Your task to perform on an android device: When is my next meeting? Image 0: 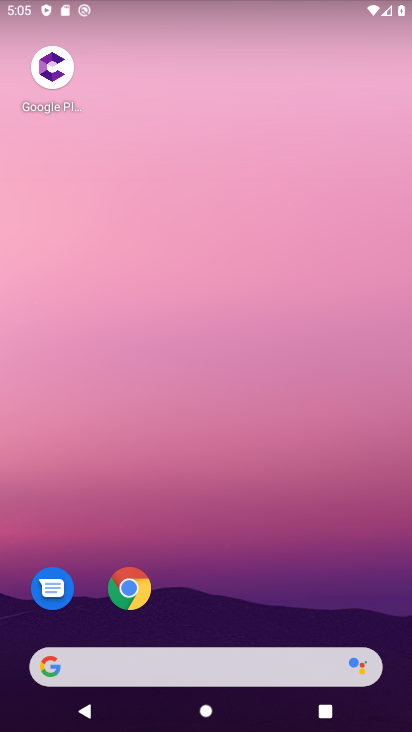
Step 0: drag from (314, 662) to (309, 40)
Your task to perform on an android device: When is my next meeting? Image 1: 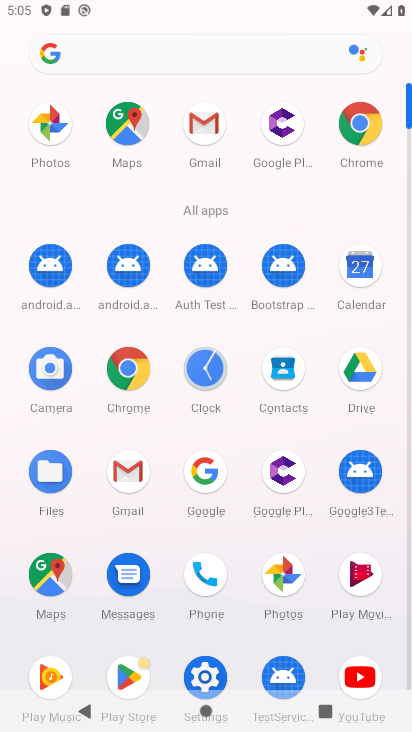
Step 1: click (365, 274)
Your task to perform on an android device: When is my next meeting? Image 2: 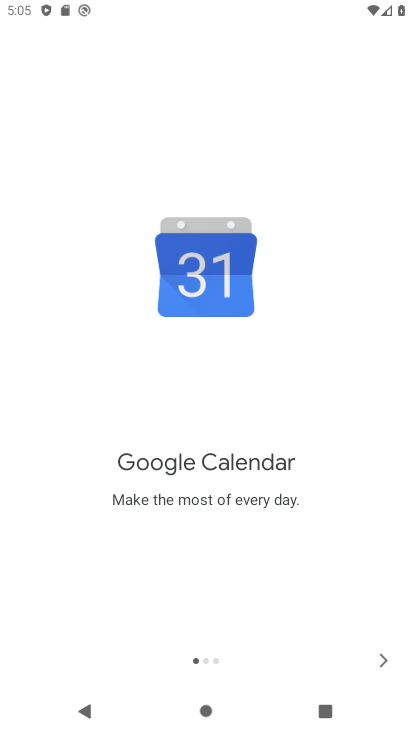
Step 2: click (389, 659)
Your task to perform on an android device: When is my next meeting? Image 3: 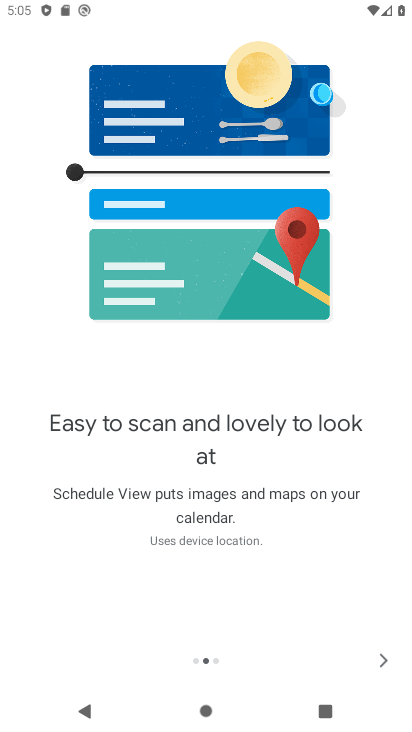
Step 3: click (389, 659)
Your task to perform on an android device: When is my next meeting? Image 4: 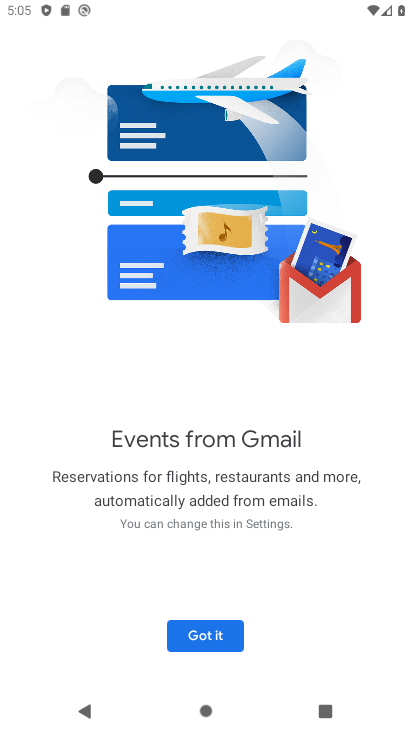
Step 4: click (209, 629)
Your task to perform on an android device: When is my next meeting? Image 5: 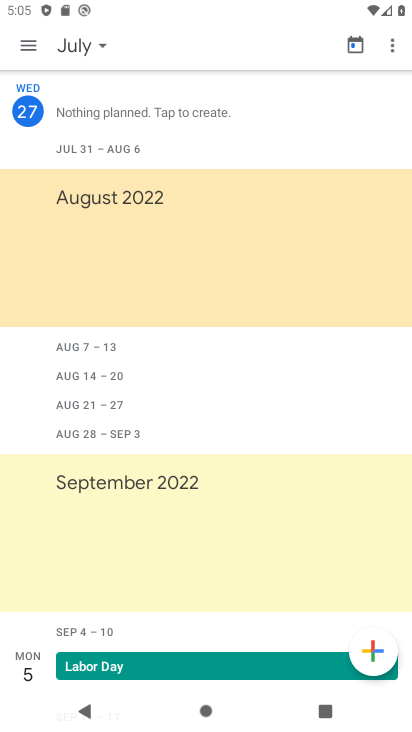
Step 5: click (93, 40)
Your task to perform on an android device: When is my next meeting? Image 6: 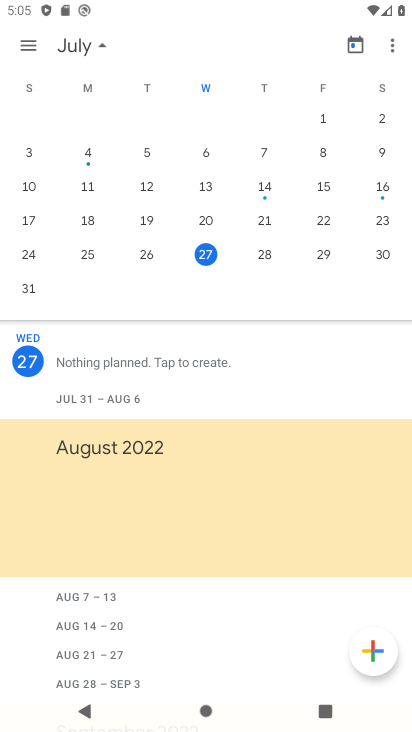
Step 6: click (265, 256)
Your task to perform on an android device: When is my next meeting? Image 7: 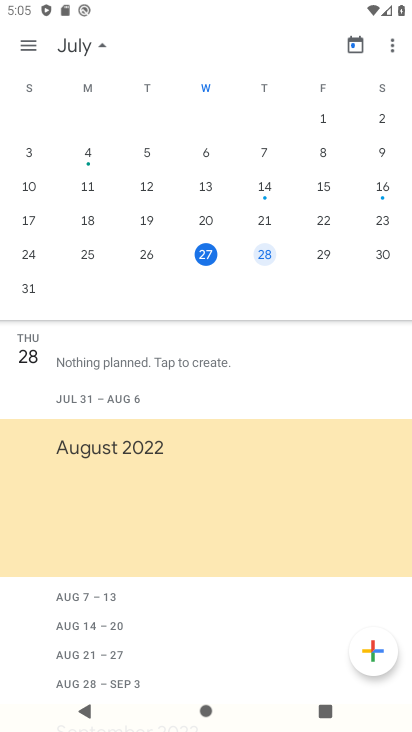
Step 7: task complete